Your task to perform on an android device: snooze an email in the gmail app Image 0: 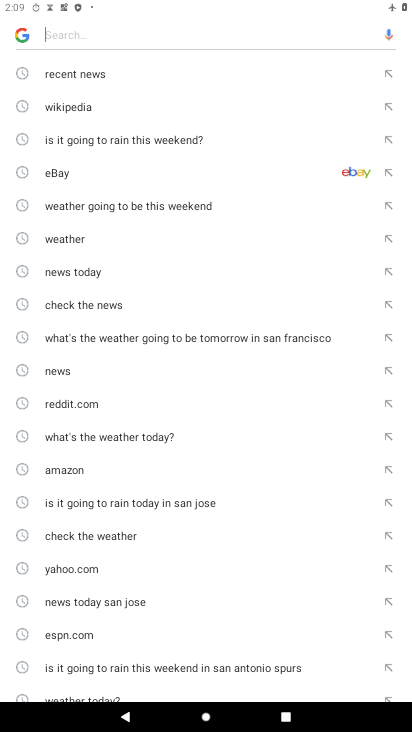
Step 0: press home button
Your task to perform on an android device: snooze an email in the gmail app Image 1: 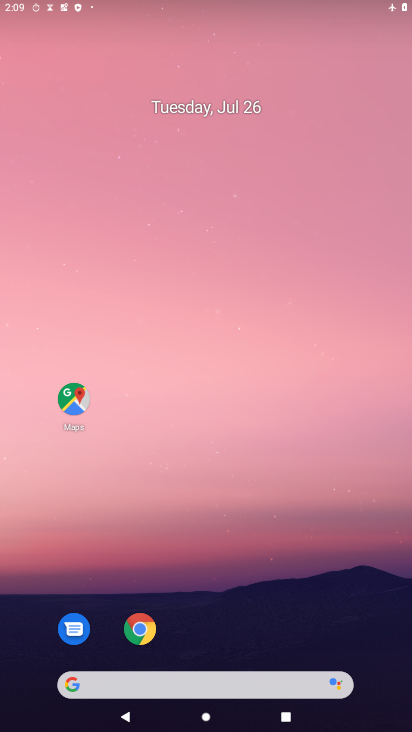
Step 1: drag from (233, 651) to (301, 24)
Your task to perform on an android device: snooze an email in the gmail app Image 2: 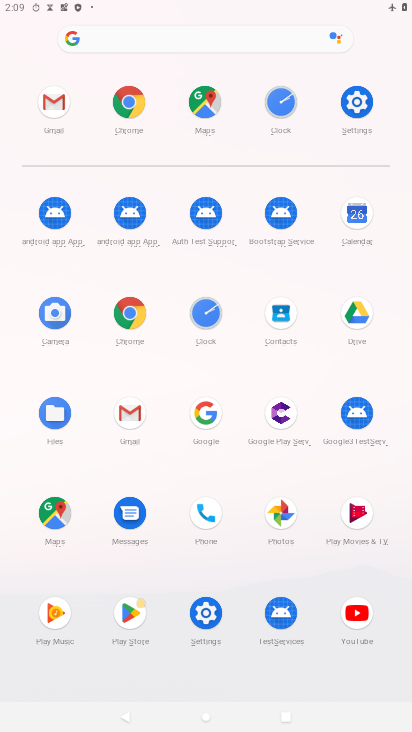
Step 2: click (134, 409)
Your task to perform on an android device: snooze an email in the gmail app Image 3: 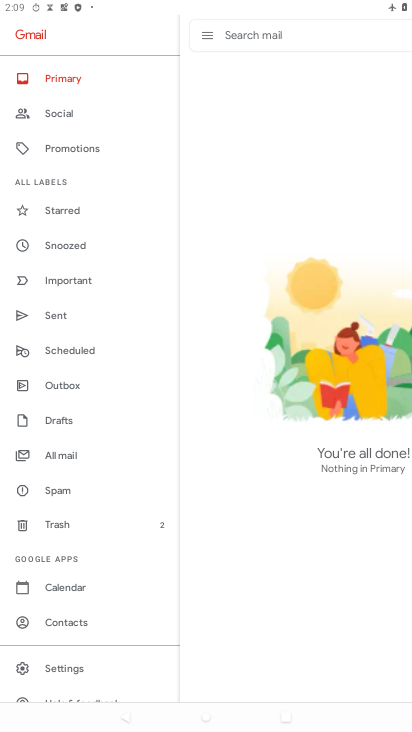
Step 3: click (60, 240)
Your task to perform on an android device: snooze an email in the gmail app Image 4: 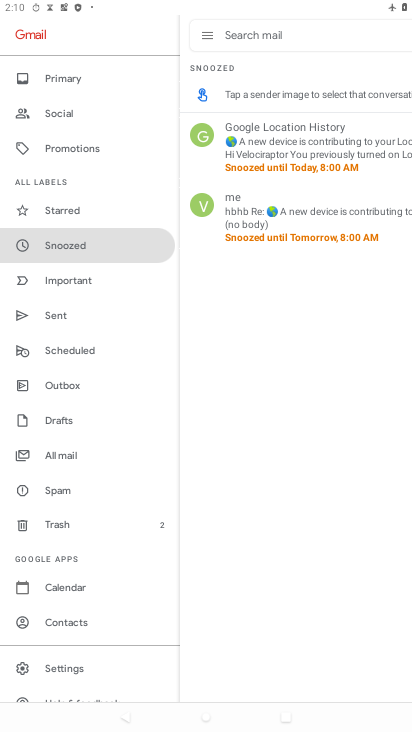
Step 4: task complete